Your task to perform on an android device: add a contact in the contacts app Image 0: 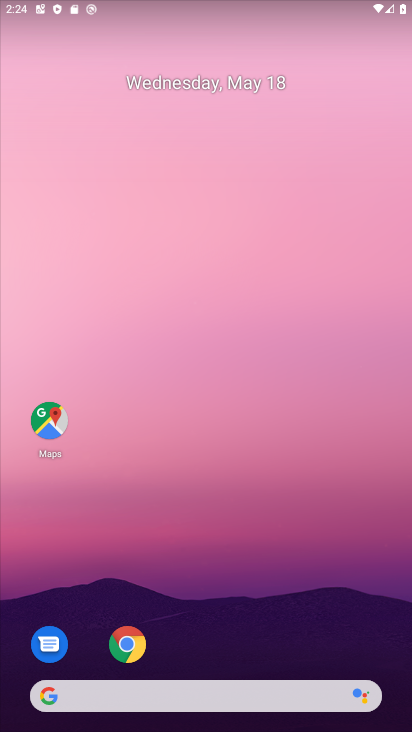
Step 0: drag from (129, 713) to (154, 125)
Your task to perform on an android device: add a contact in the contacts app Image 1: 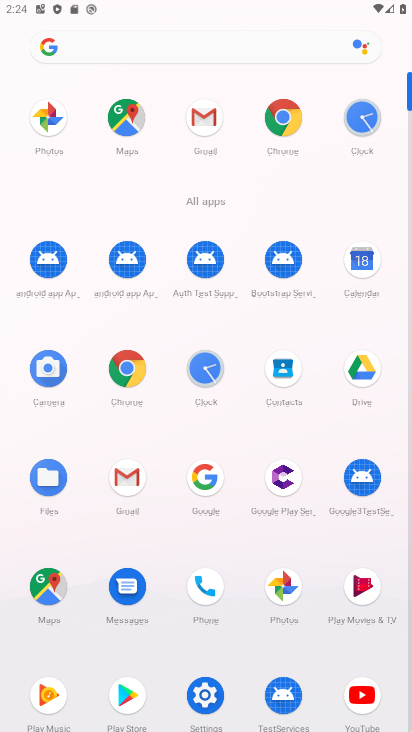
Step 1: click (279, 363)
Your task to perform on an android device: add a contact in the contacts app Image 2: 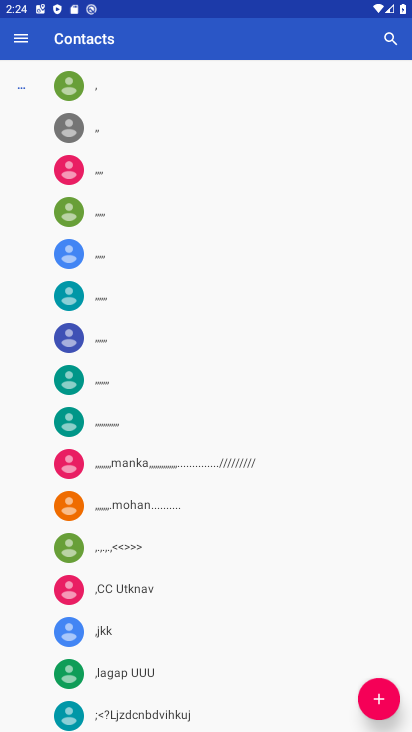
Step 2: click (378, 692)
Your task to perform on an android device: add a contact in the contacts app Image 3: 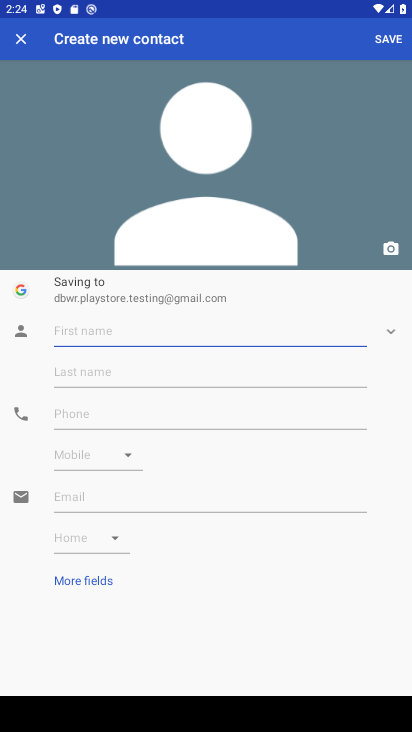
Step 3: type "jhg"
Your task to perform on an android device: add a contact in the contacts app Image 4: 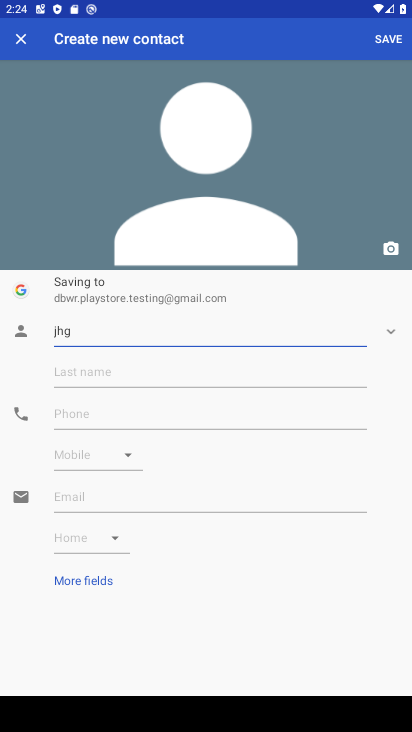
Step 4: click (160, 409)
Your task to perform on an android device: add a contact in the contacts app Image 5: 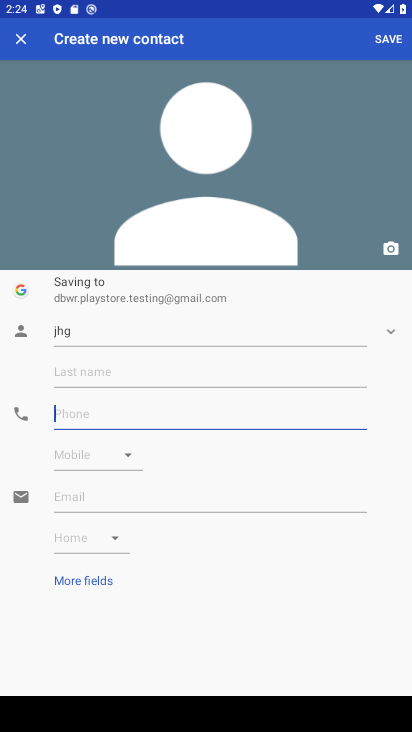
Step 5: click (160, 415)
Your task to perform on an android device: add a contact in the contacts app Image 6: 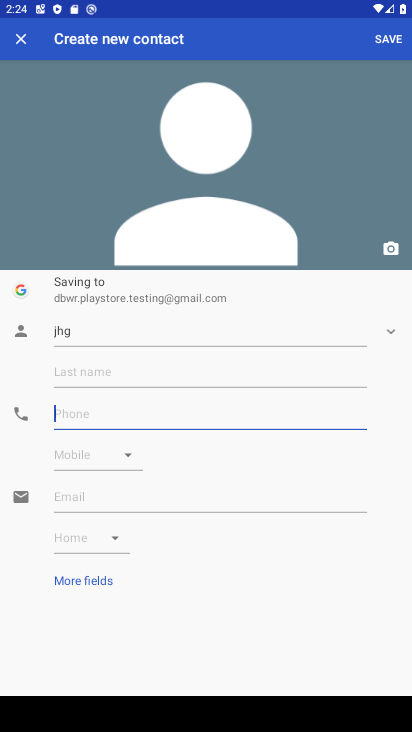
Step 6: type "987"
Your task to perform on an android device: add a contact in the contacts app Image 7: 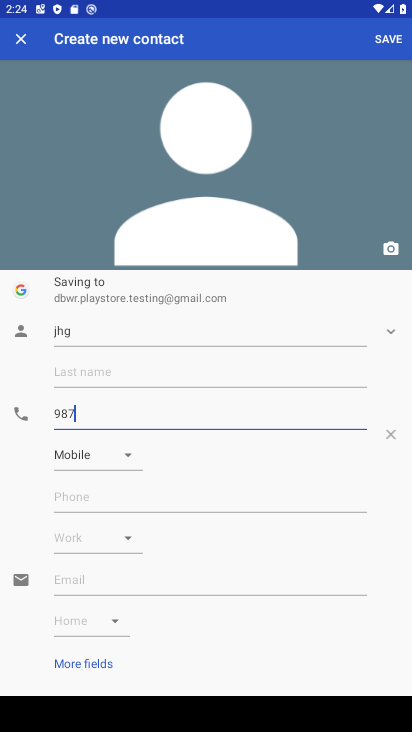
Step 7: click (395, 42)
Your task to perform on an android device: add a contact in the contacts app Image 8: 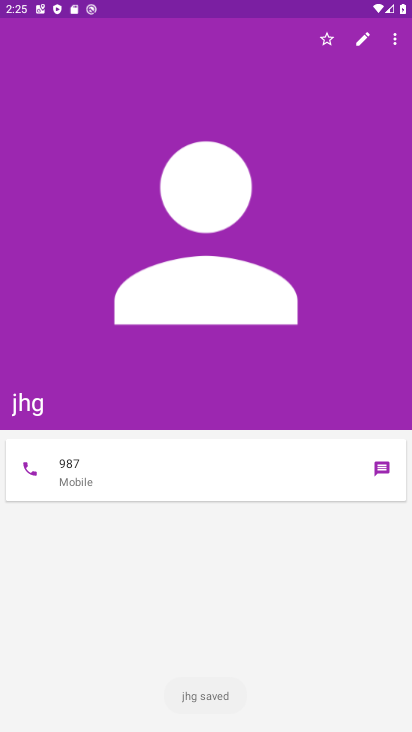
Step 8: task complete